Your task to perform on an android device: When is my next appointment? Image 0: 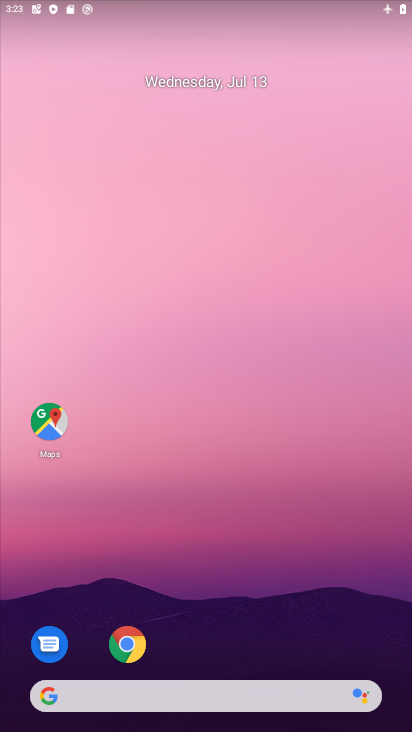
Step 0: drag from (304, 521) to (297, 38)
Your task to perform on an android device: When is my next appointment? Image 1: 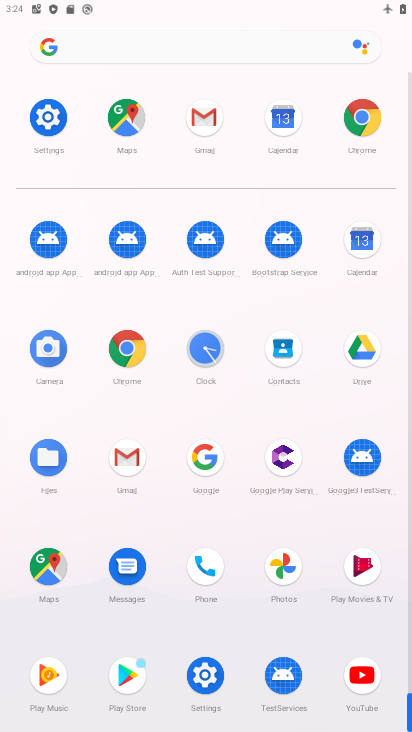
Step 1: click (369, 241)
Your task to perform on an android device: When is my next appointment? Image 2: 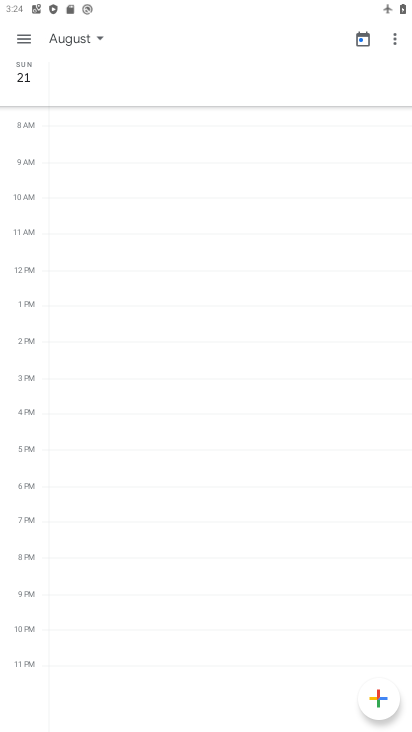
Step 2: click (81, 26)
Your task to perform on an android device: When is my next appointment? Image 3: 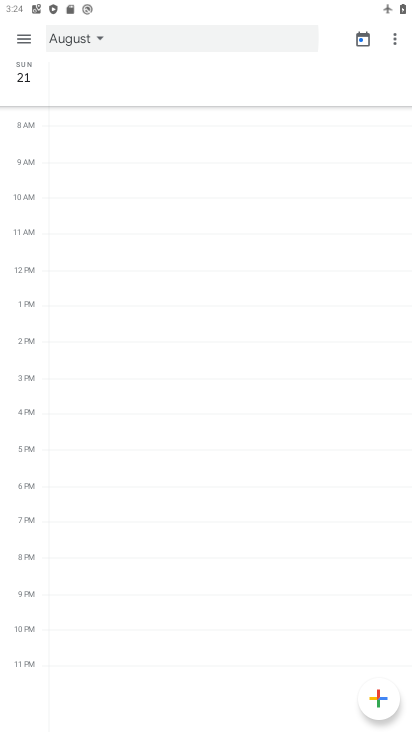
Step 3: click (83, 34)
Your task to perform on an android device: When is my next appointment? Image 4: 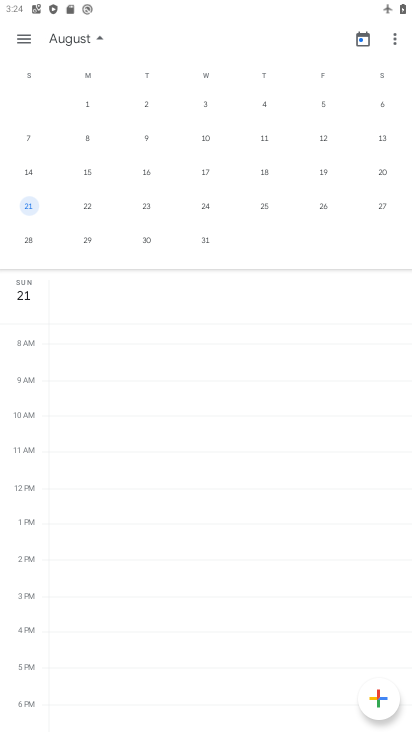
Step 4: task complete